Your task to perform on an android device: toggle priority inbox in the gmail app Image 0: 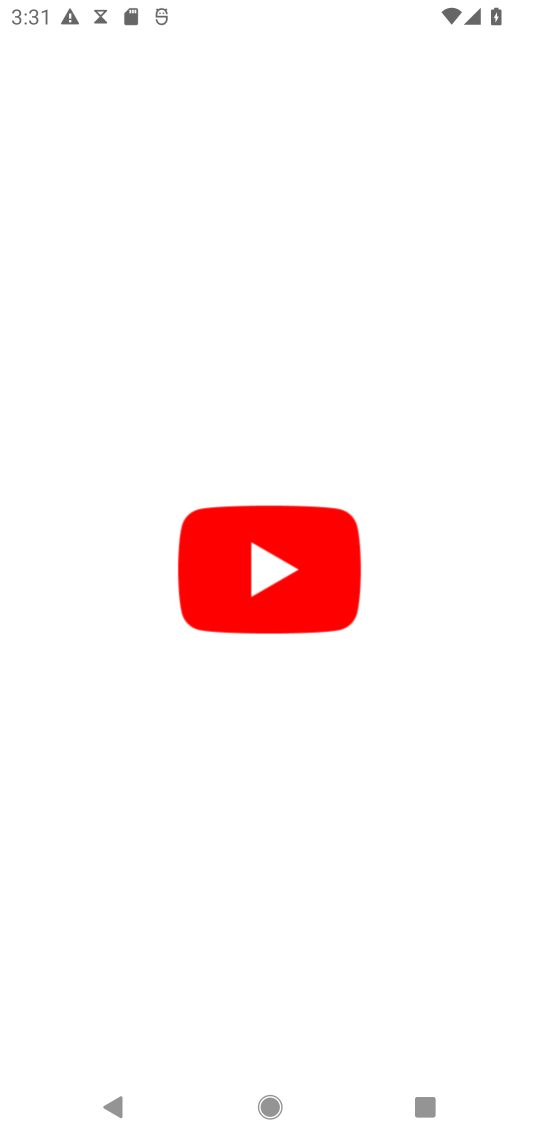
Step 0: click (262, 396)
Your task to perform on an android device: toggle priority inbox in the gmail app Image 1: 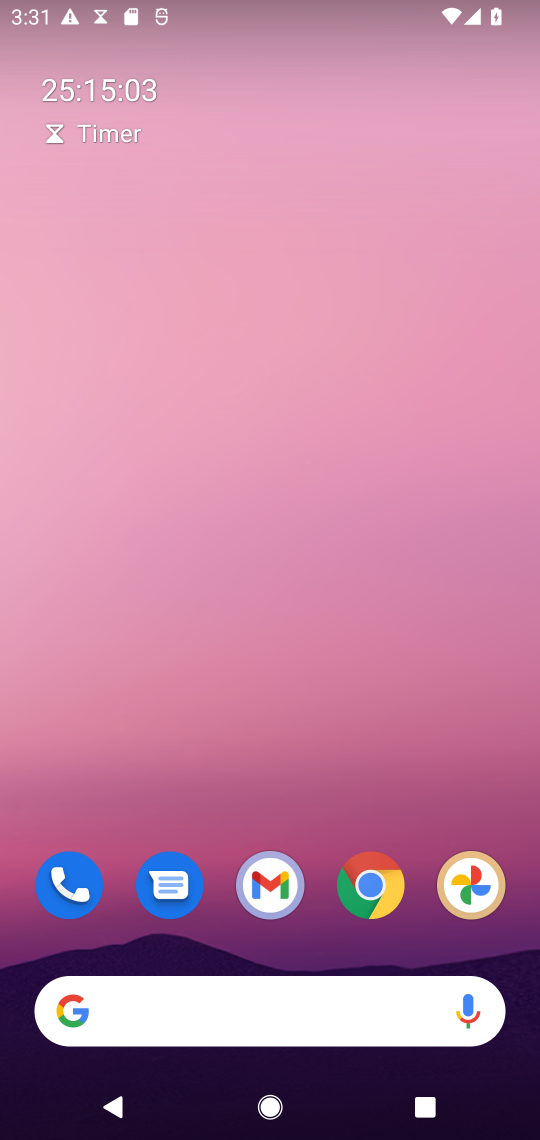
Step 1: click (382, 891)
Your task to perform on an android device: toggle priority inbox in the gmail app Image 2: 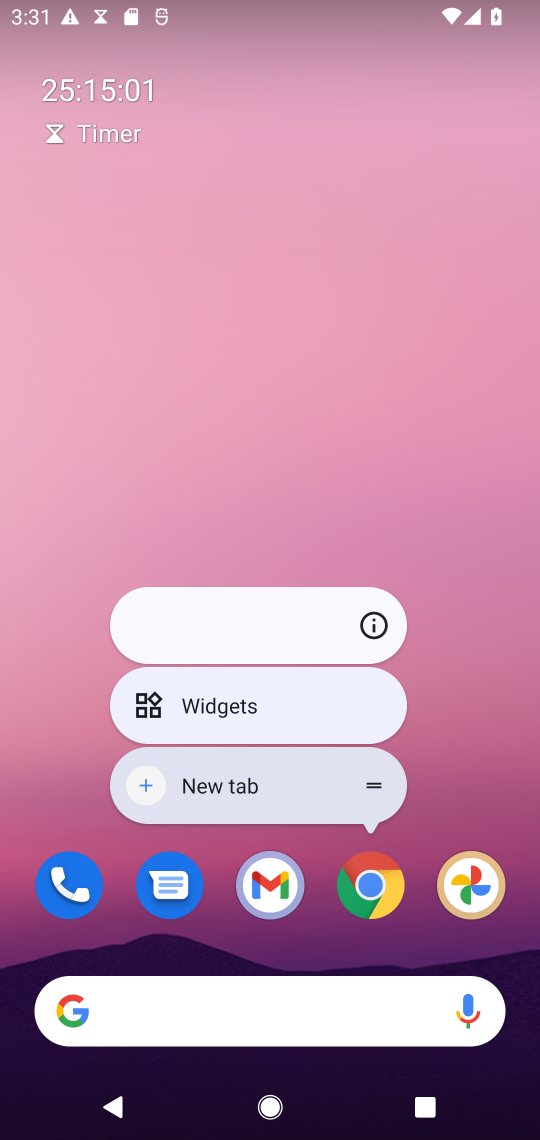
Step 2: click (382, 890)
Your task to perform on an android device: toggle priority inbox in the gmail app Image 3: 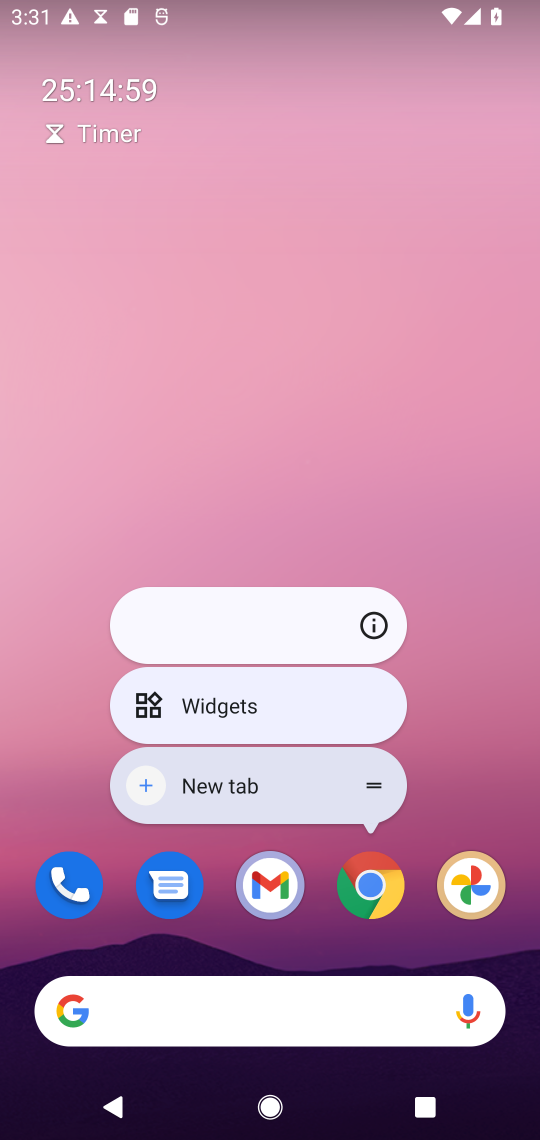
Step 3: click (382, 890)
Your task to perform on an android device: toggle priority inbox in the gmail app Image 4: 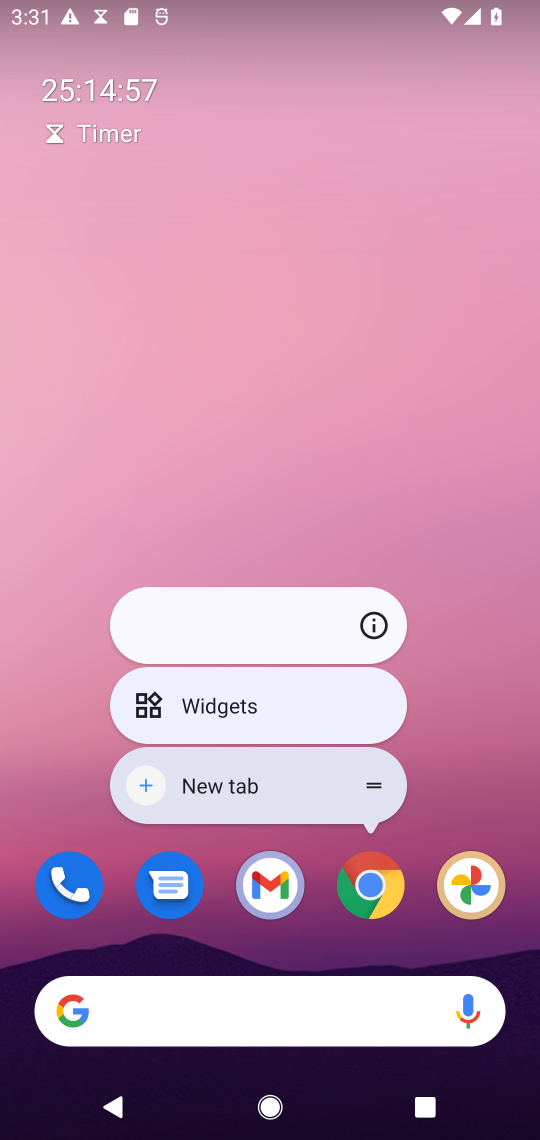
Step 4: click (376, 921)
Your task to perform on an android device: toggle priority inbox in the gmail app Image 5: 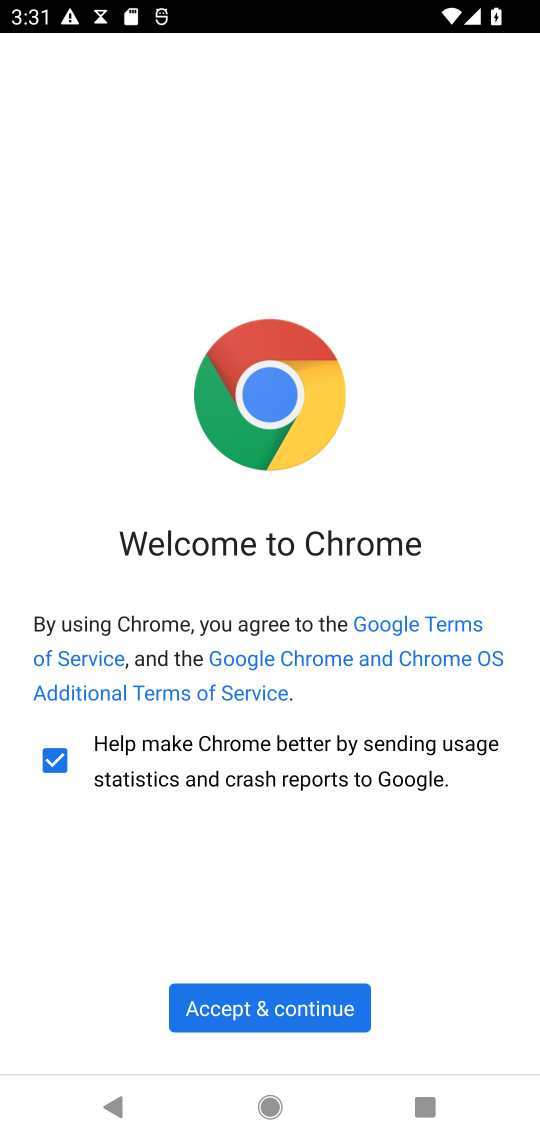
Step 5: click (257, 1004)
Your task to perform on an android device: toggle priority inbox in the gmail app Image 6: 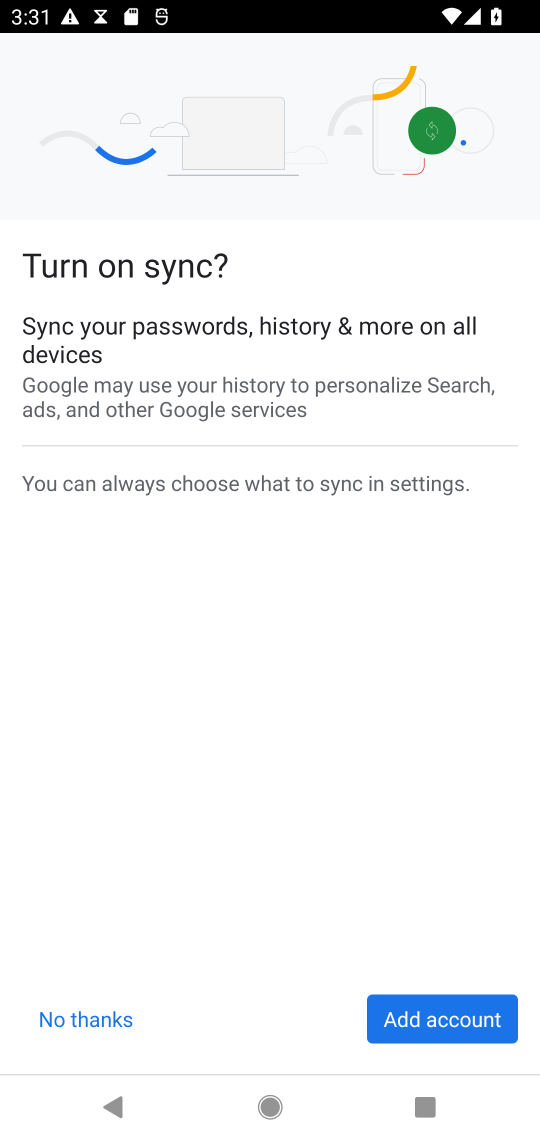
Step 6: click (67, 1023)
Your task to perform on an android device: toggle priority inbox in the gmail app Image 7: 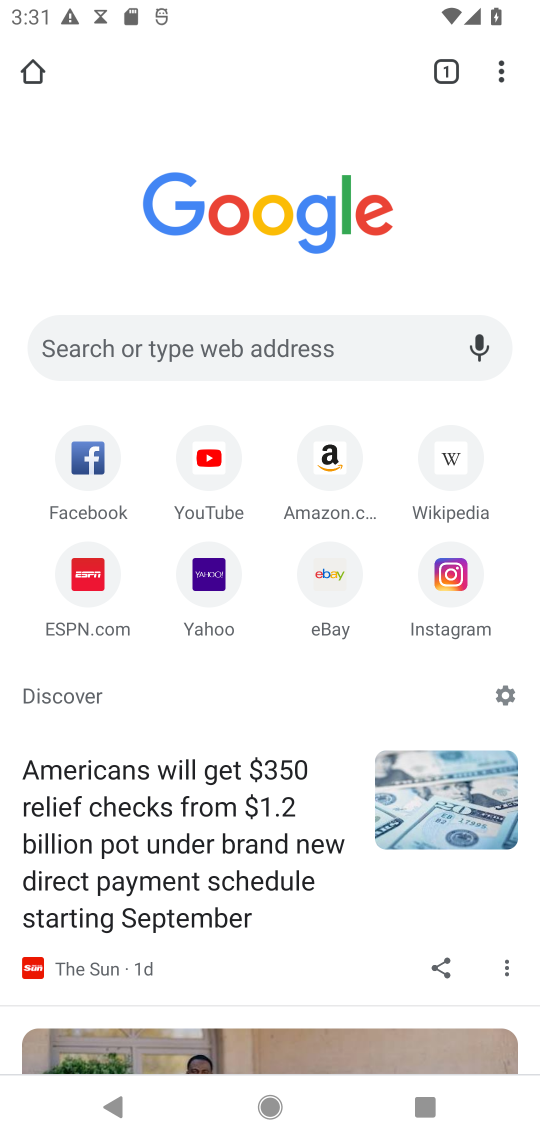
Step 7: drag from (484, 67) to (240, 674)
Your task to perform on an android device: toggle priority inbox in the gmail app Image 8: 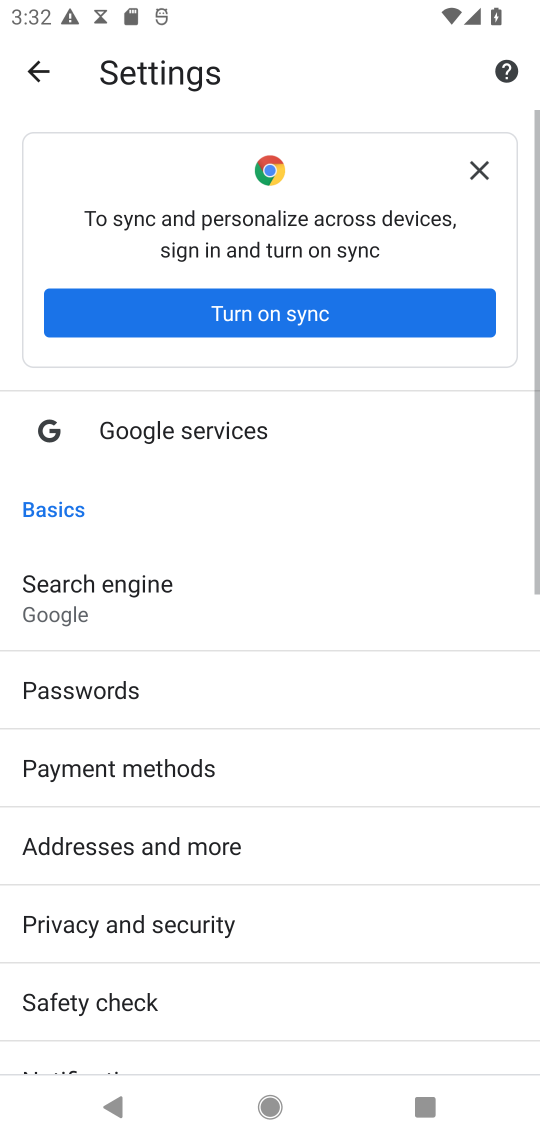
Step 8: drag from (148, 1017) to (276, 351)
Your task to perform on an android device: toggle priority inbox in the gmail app Image 9: 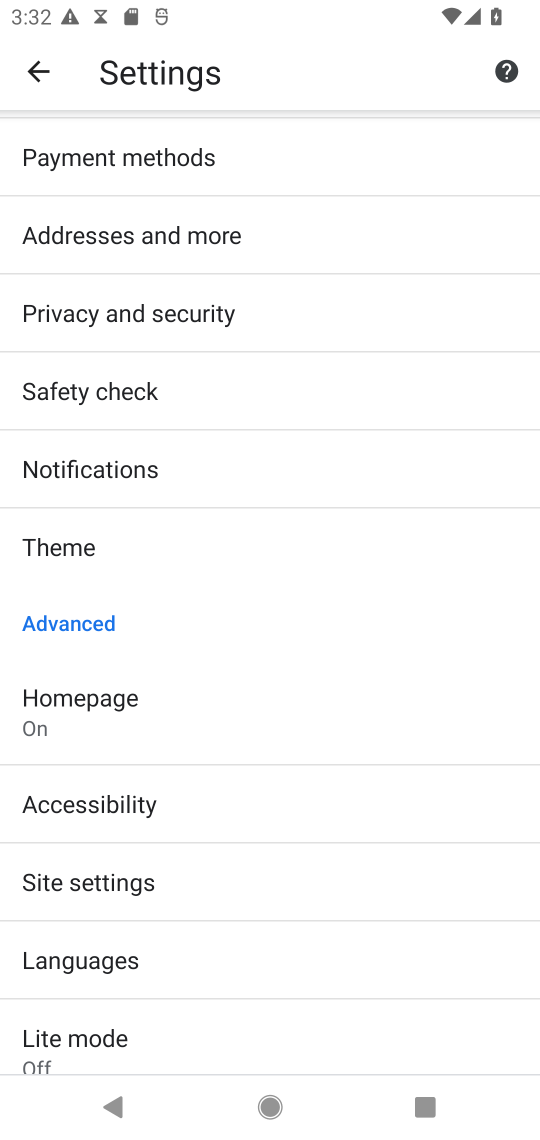
Step 9: drag from (232, 231) to (233, 888)
Your task to perform on an android device: toggle priority inbox in the gmail app Image 10: 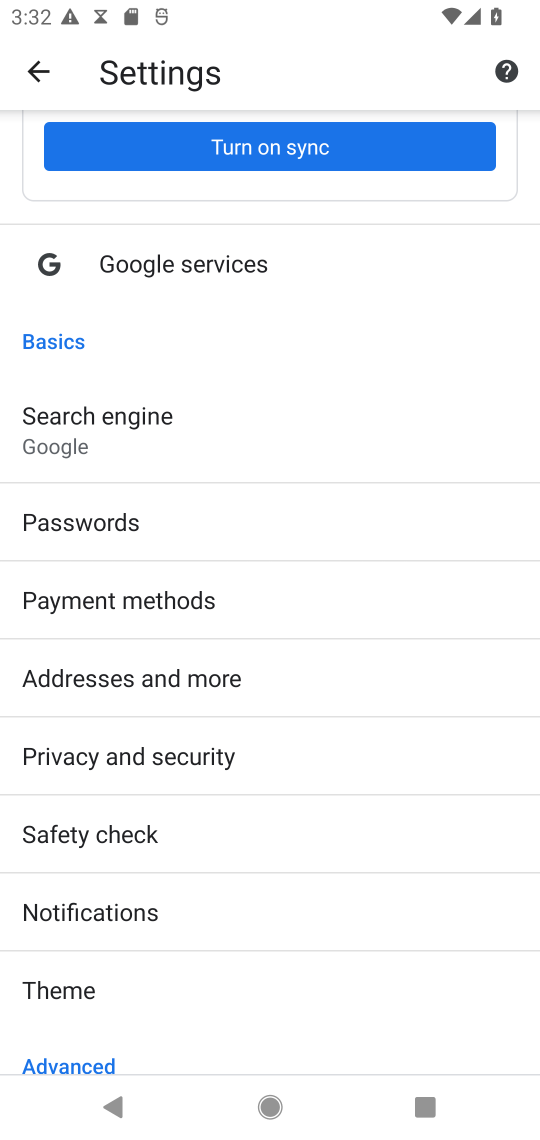
Step 10: press back button
Your task to perform on an android device: toggle priority inbox in the gmail app Image 11: 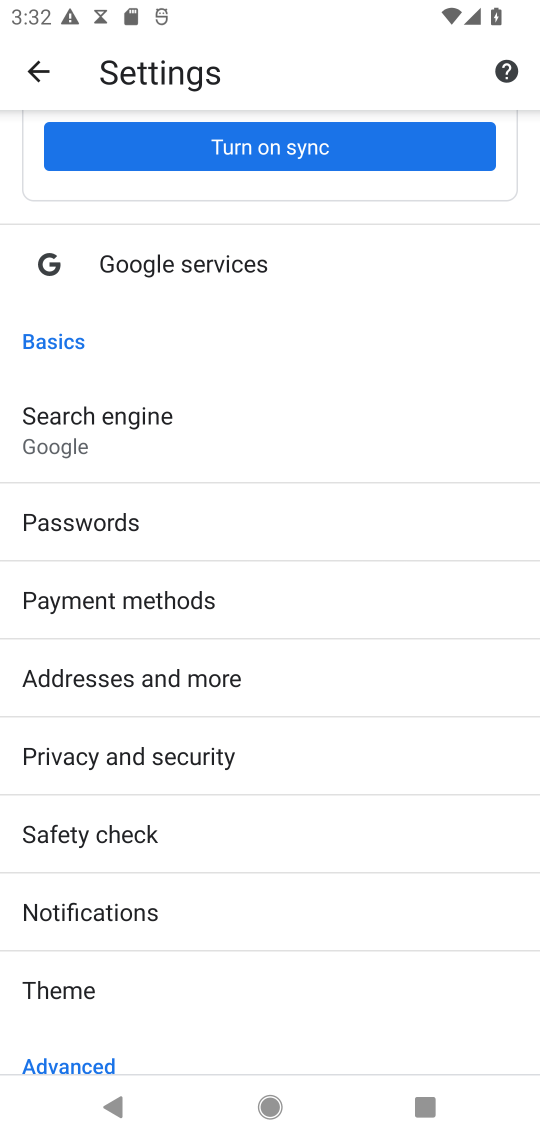
Step 11: press back button
Your task to perform on an android device: toggle priority inbox in the gmail app Image 12: 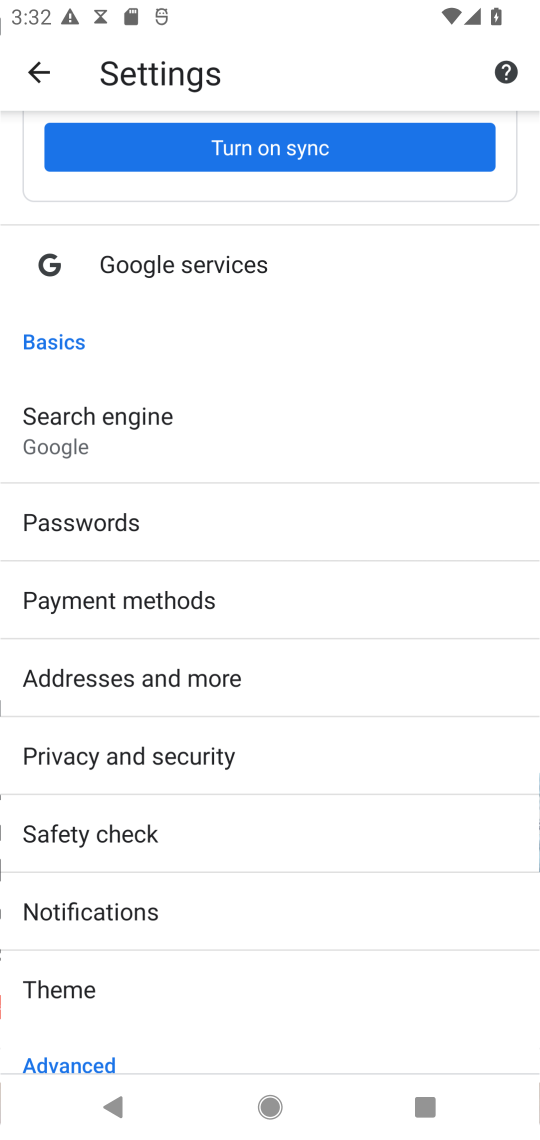
Step 12: press back button
Your task to perform on an android device: toggle priority inbox in the gmail app Image 13: 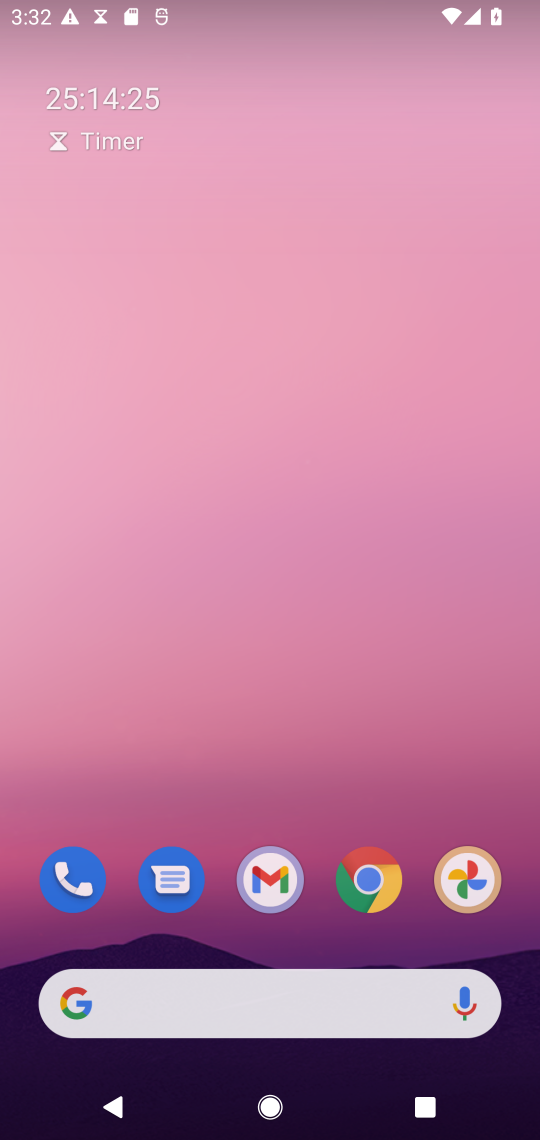
Step 13: press back button
Your task to perform on an android device: toggle priority inbox in the gmail app Image 14: 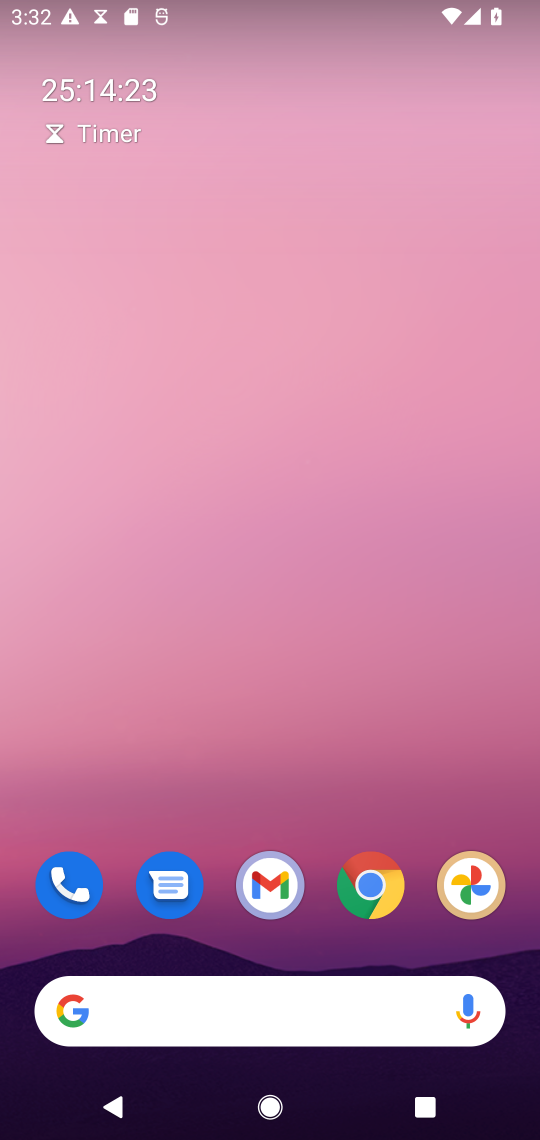
Step 14: drag from (254, 938) to (308, 113)
Your task to perform on an android device: toggle priority inbox in the gmail app Image 15: 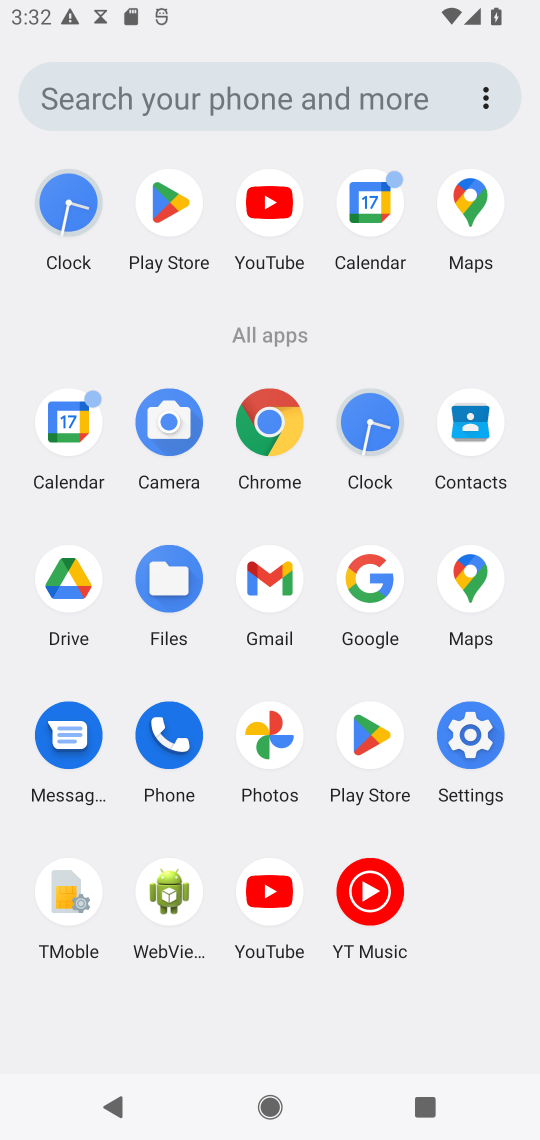
Step 15: click (278, 595)
Your task to perform on an android device: toggle priority inbox in the gmail app Image 16: 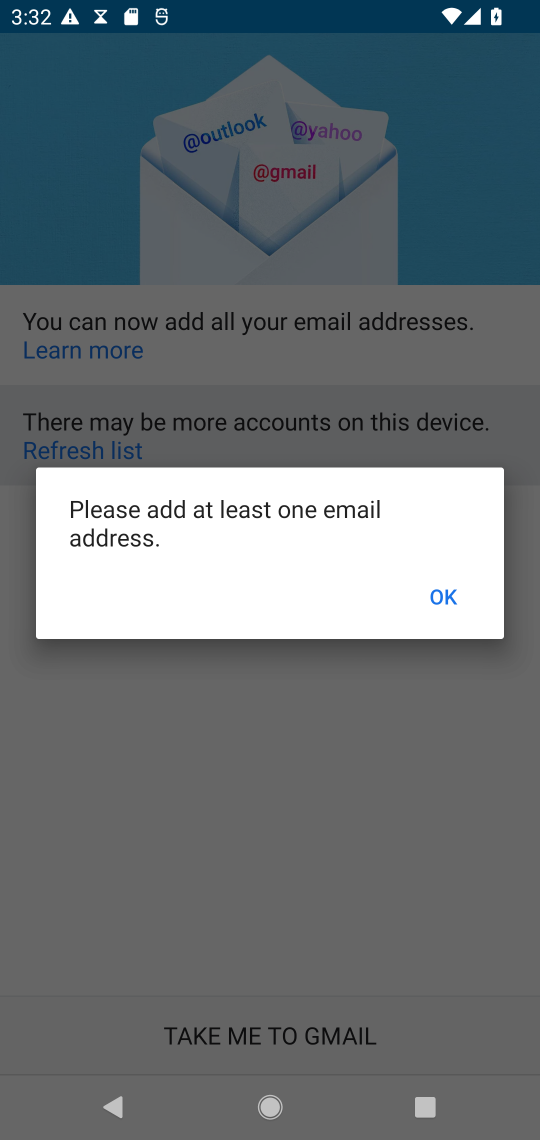
Step 16: click (453, 604)
Your task to perform on an android device: toggle priority inbox in the gmail app Image 17: 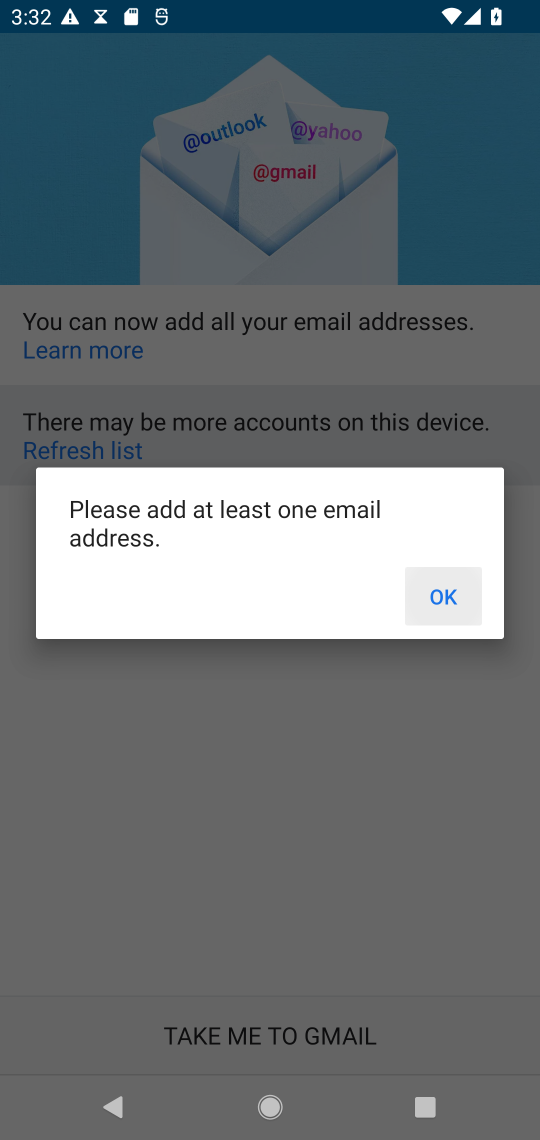
Step 17: click (451, 602)
Your task to perform on an android device: toggle priority inbox in the gmail app Image 18: 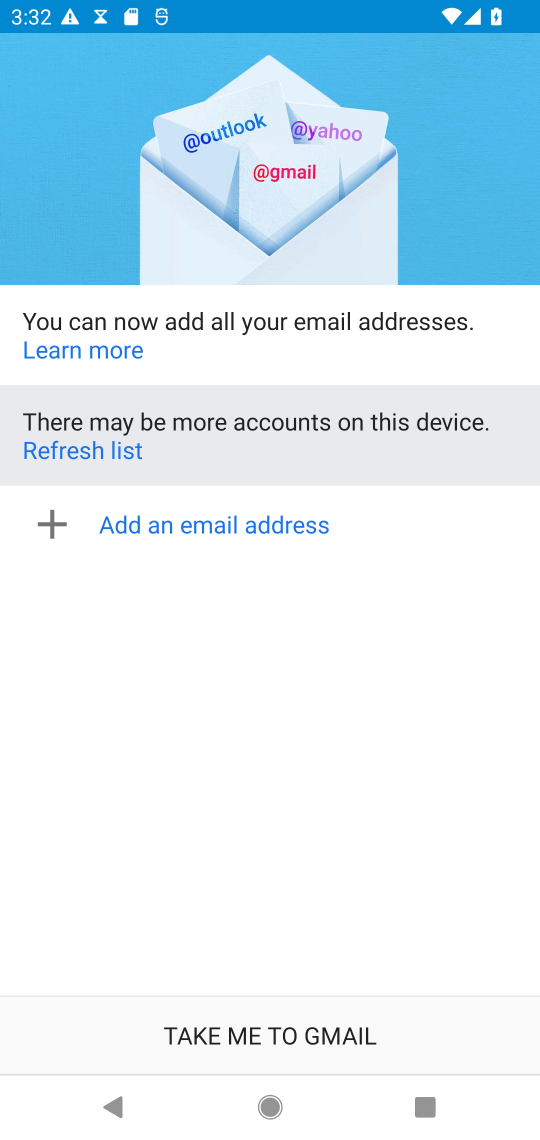
Step 18: task complete